Your task to perform on an android device: all mails in gmail Image 0: 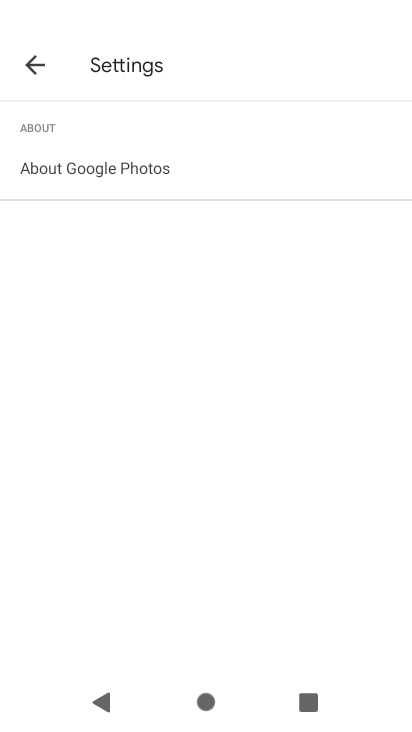
Step 0: press home button
Your task to perform on an android device: all mails in gmail Image 1: 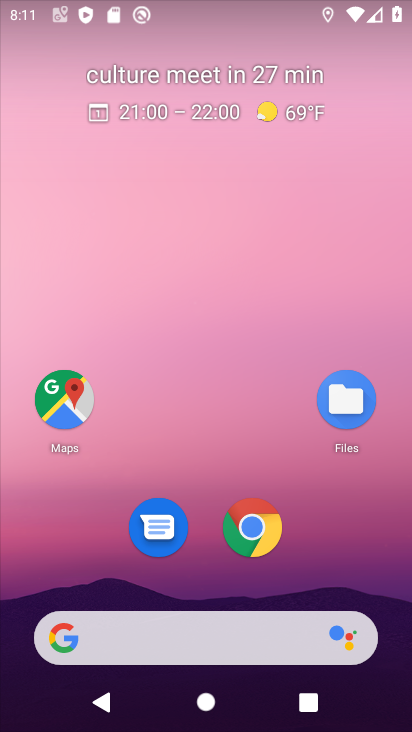
Step 1: drag from (303, 571) to (315, 59)
Your task to perform on an android device: all mails in gmail Image 2: 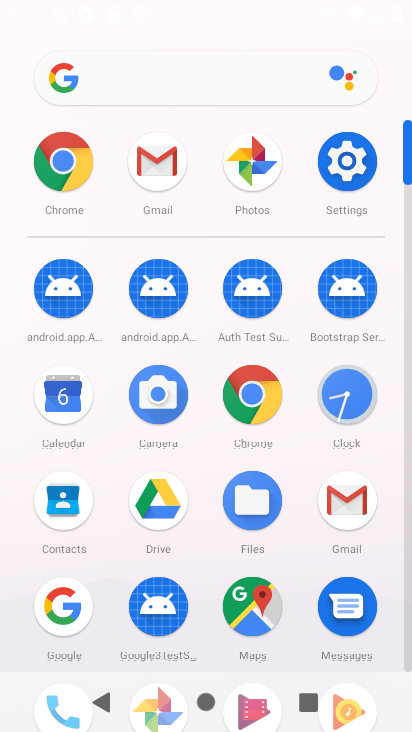
Step 2: click (158, 182)
Your task to perform on an android device: all mails in gmail Image 3: 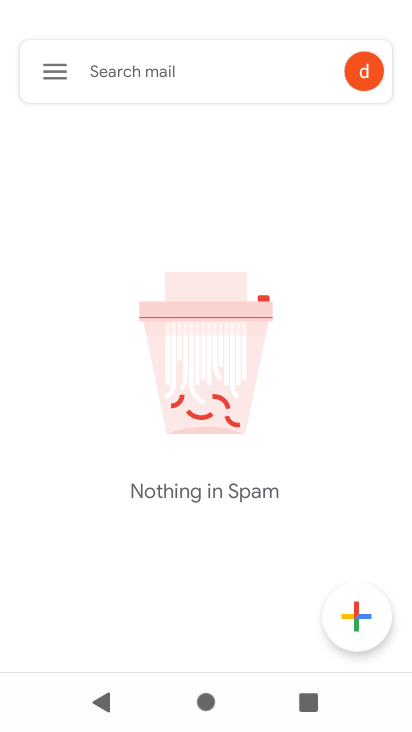
Step 3: click (50, 69)
Your task to perform on an android device: all mails in gmail Image 4: 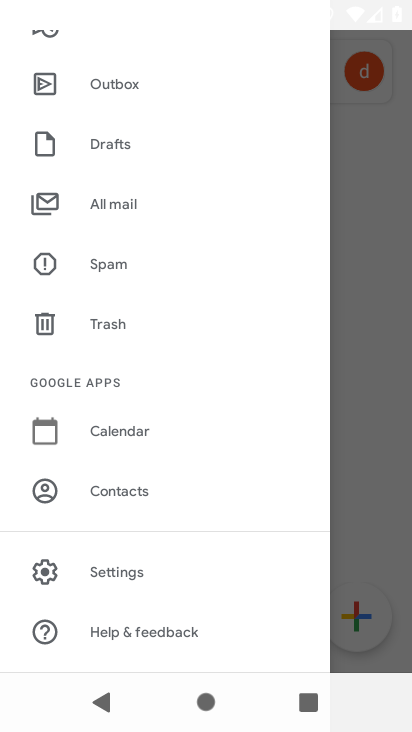
Step 4: click (116, 202)
Your task to perform on an android device: all mails in gmail Image 5: 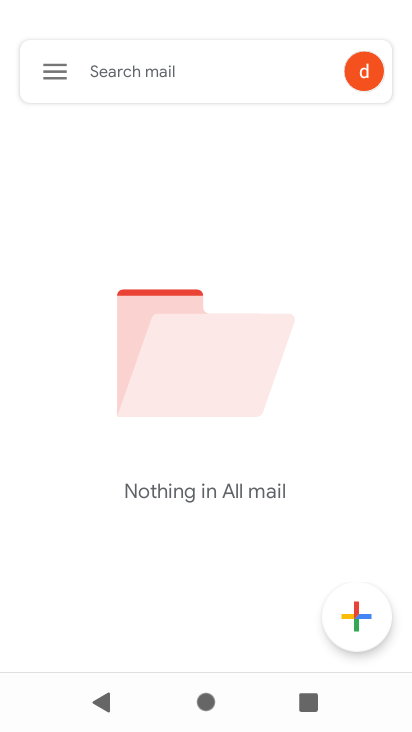
Step 5: task complete